Your task to perform on an android device: clear all cookies in the chrome app Image 0: 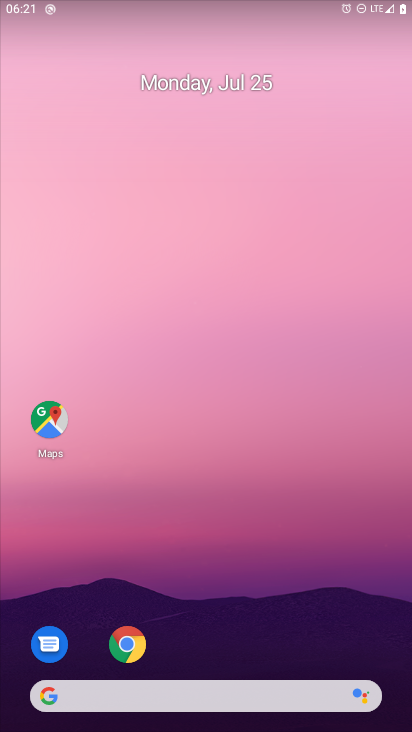
Step 0: press home button
Your task to perform on an android device: clear all cookies in the chrome app Image 1: 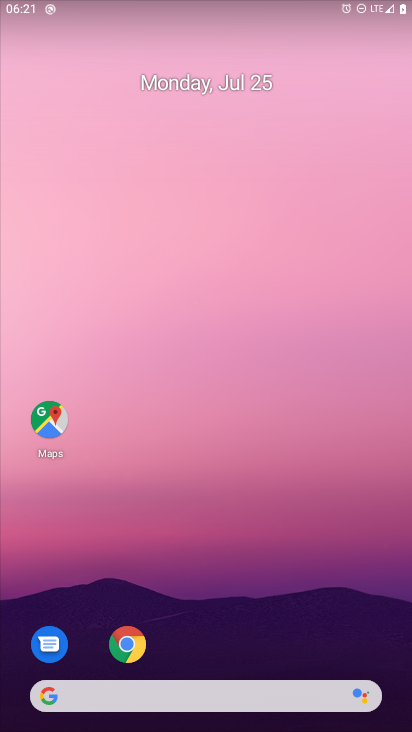
Step 1: drag from (245, 661) to (191, 108)
Your task to perform on an android device: clear all cookies in the chrome app Image 2: 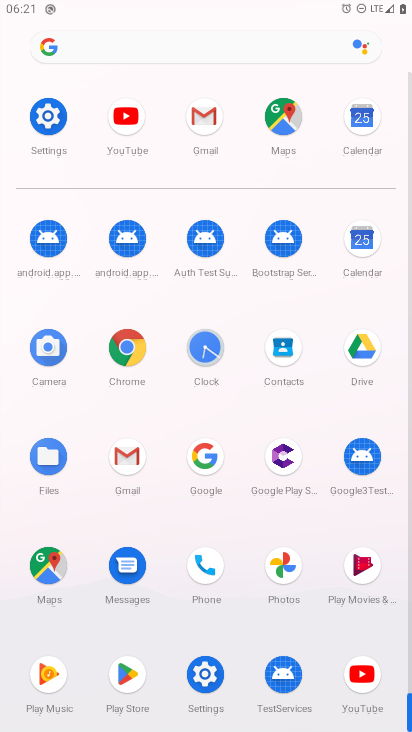
Step 2: click (125, 346)
Your task to perform on an android device: clear all cookies in the chrome app Image 3: 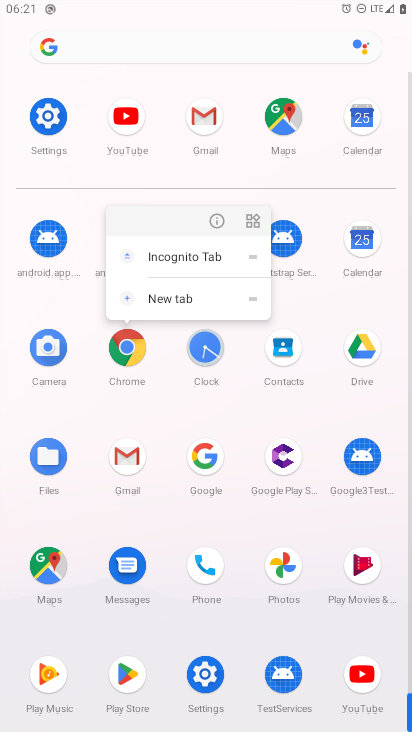
Step 3: click (125, 346)
Your task to perform on an android device: clear all cookies in the chrome app Image 4: 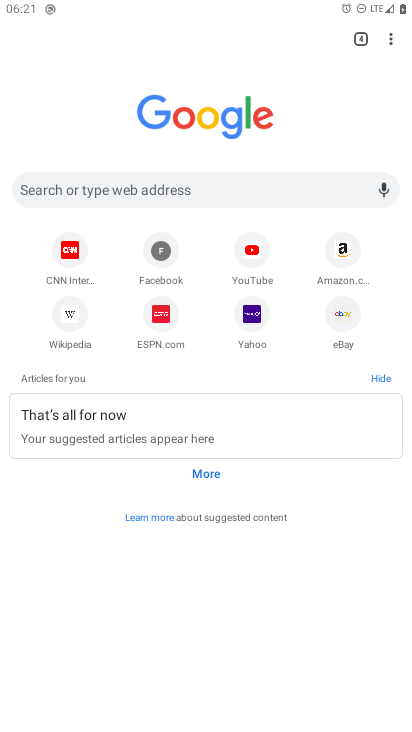
Step 4: drag from (390, 42) to (251, 337)
Your task to perform on an android device: clear all cookies in the chrome app Image 5: 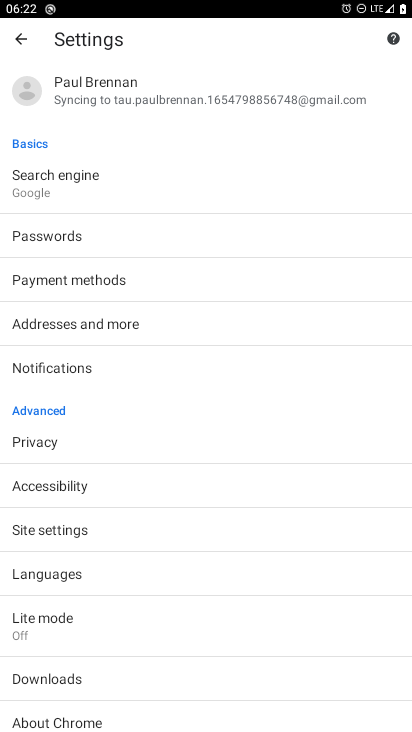
Step 5: click (33, 443)
Your task to perform on an android device: clear all cookies in the chrome app Image 6: 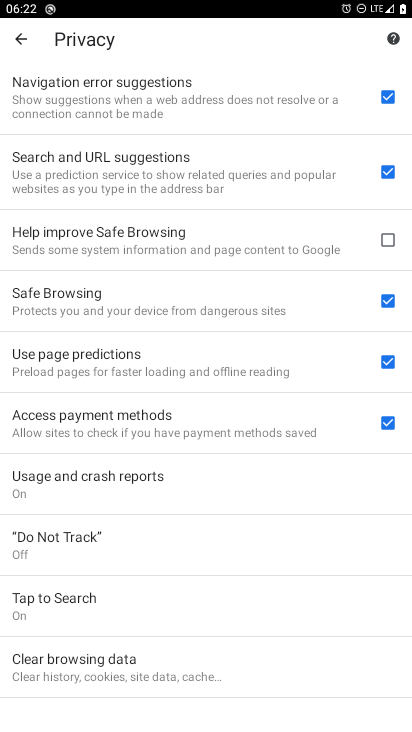
Step 6: click (126, 672)
Your task to perform on an android device: clear all cookies in the chrome app Image 7: 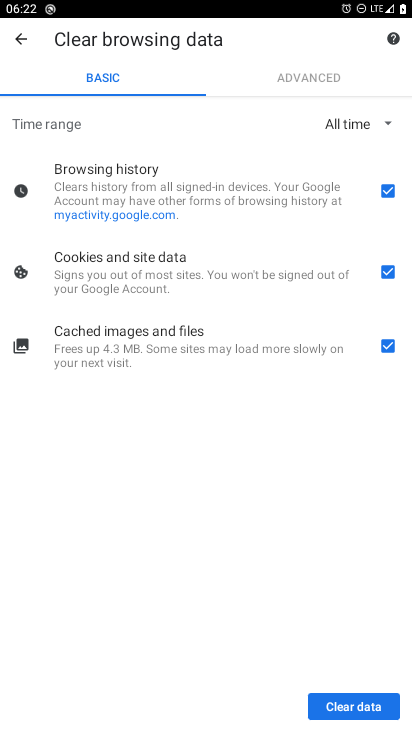
Step 7: click (385, 187)
Your task to perform on an android device: clear all cookies in the chrome app Image 8: 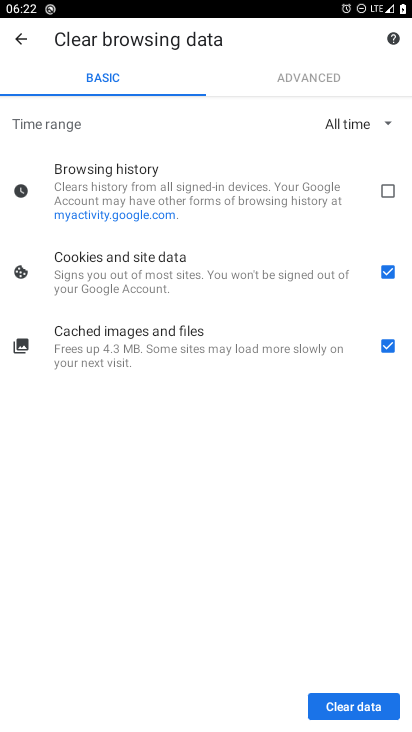
Step 8: click (391, 346)
Your task to perform on an android device: clear all cookies in the chrome app Image 9: 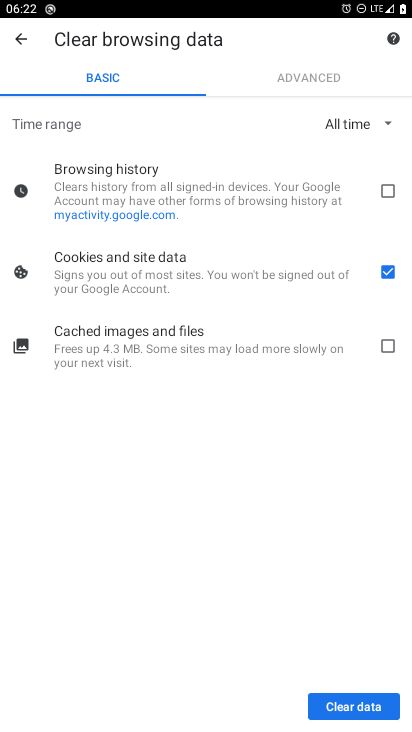
Step 9: click (355, 712)
Your task to perform on an android device: clear all cookies in the chrome app Image 10: 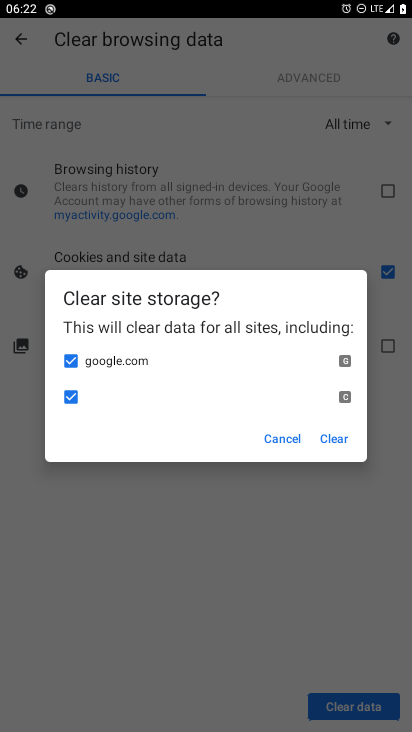
Step 10: click (329, 440)
Your task to perform on an android device: clear all cookies in the chrome app Image 11: 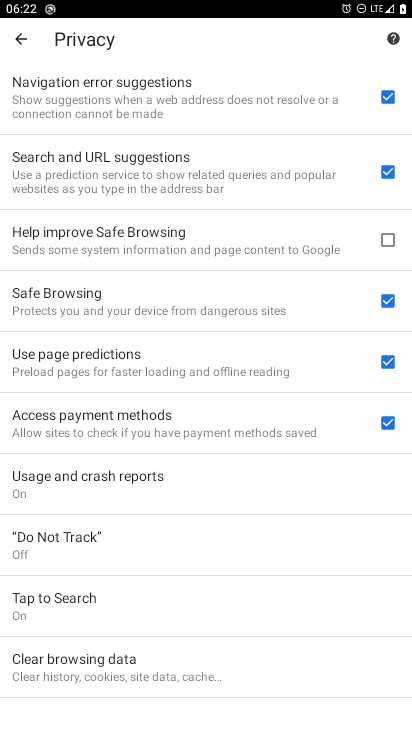
Step 11: task complete